Your task to perform on an android device: Open CNN.com Image 0: 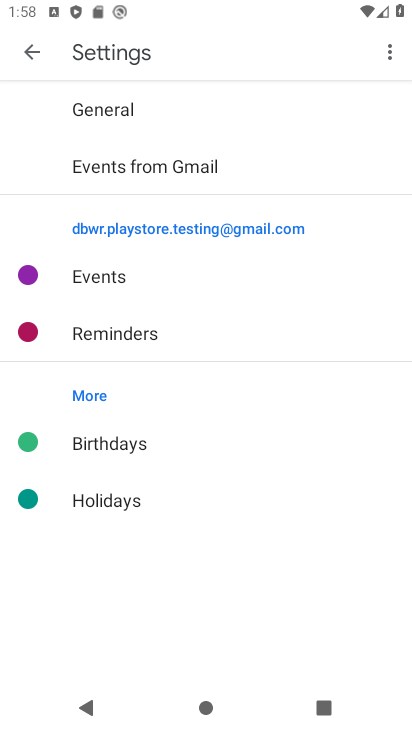
Step 0: press home button
Your task to perform on an android device: Open CNN.com Image 1: 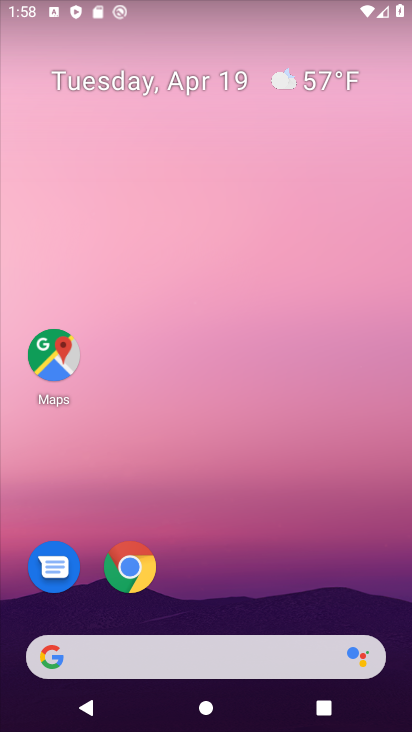
Step 1: click (133, 566)
Your task to perform on an android device: Open CNN.com Image 2: 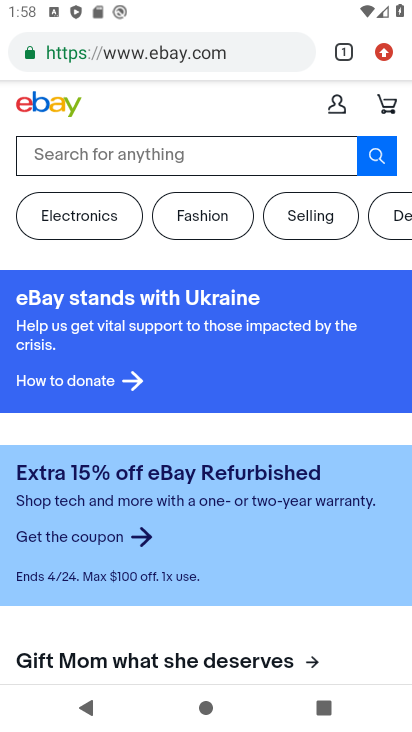
Step 2: click (174, 45)
Your task to perform on an android device: Open CNN.com Image 3: 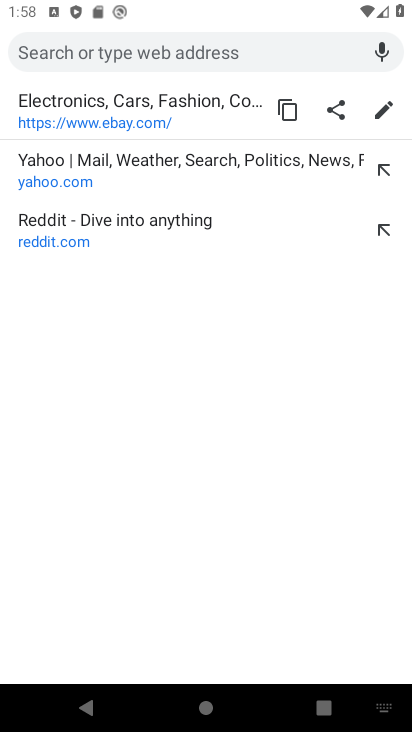
Step 3: type "cnn.com"
Your task to perform on an android device: Open CNN.com Image 4: 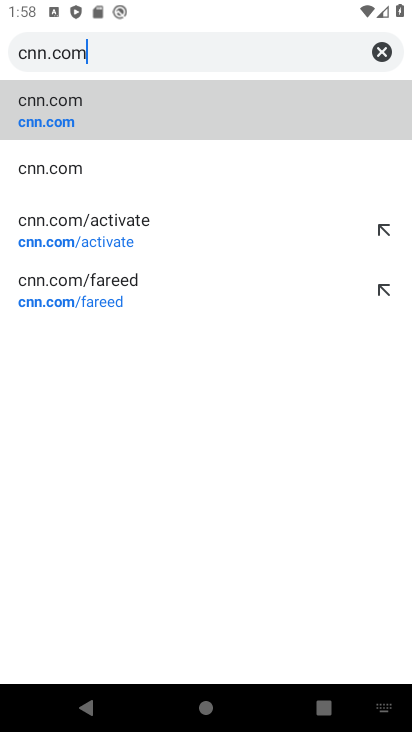
Step 4: click (65, 112)
Your task to perform on an android device: Open CNN.com Image 5: 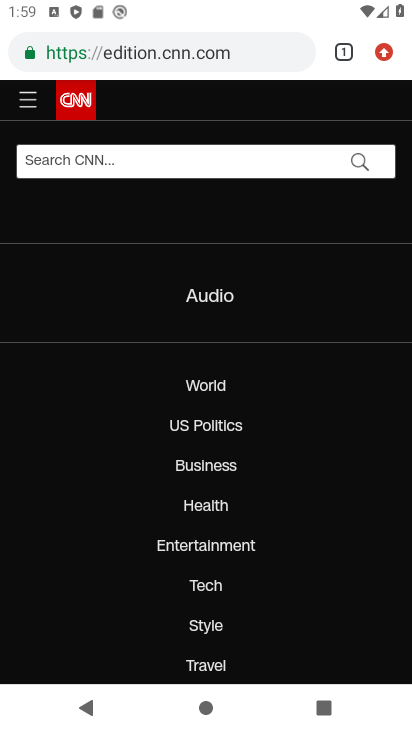
Step 5: task complete